Your task to perform on an android device: Play the last video I watched on Youtube Image 0: 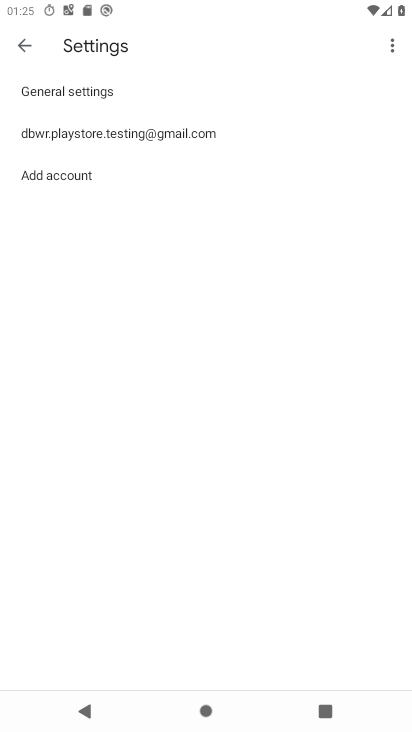
Step 0: drag from (339, 693) to (348, 314)
Your task to perform on an android device: Play the last video I watched on Youtube Image 1: 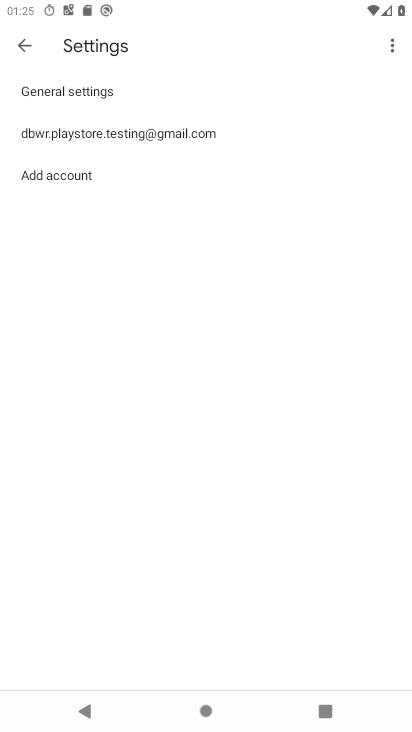
Step 1: press home button
Your task to perform on an android device: Play the last video I watched on Youtube Image 2: 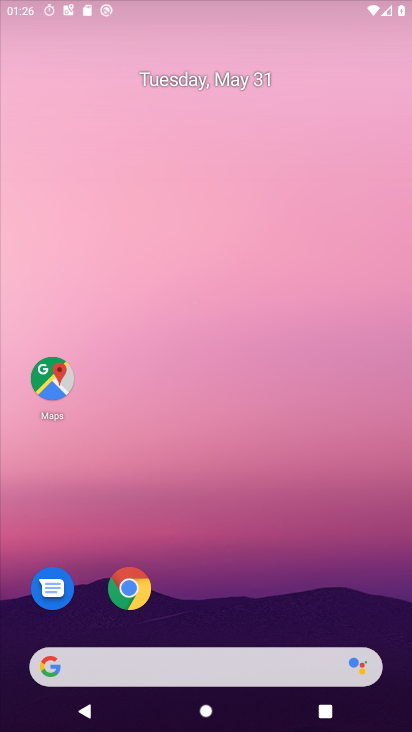
Step 2: drag from (311, 641) to (333, 130)
Your task to perform on an android device: Play the last video I watched on Youtube Image 3: 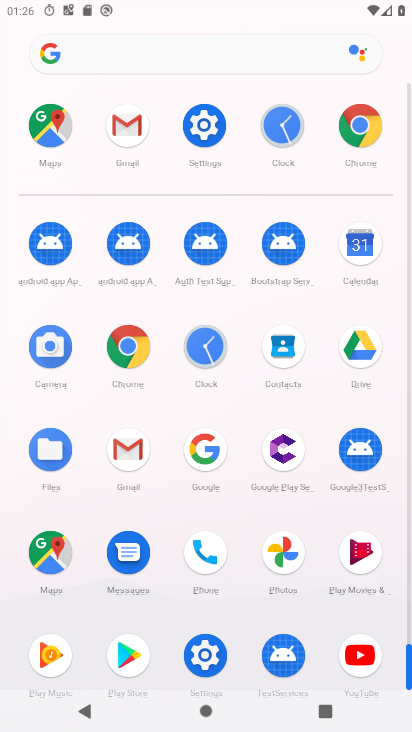
Step 3: click (369, 642)
Your task to perform on an android device: Play the last video I watched on Youtube Image 4: 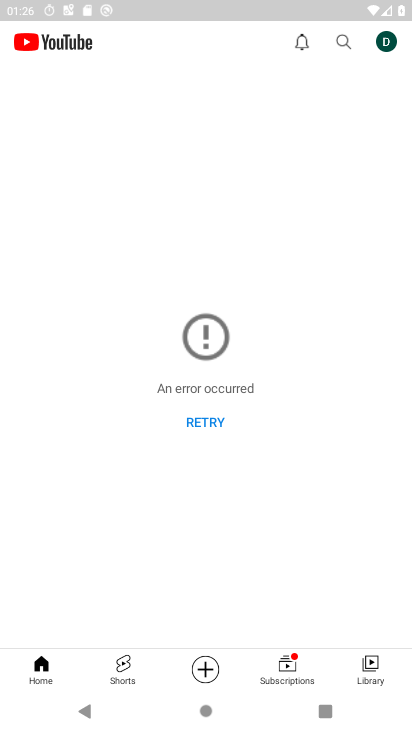
Step 4: click (372, 672)
Your task to perform on an android device: Play the last video I watched on Youtube Image 5: 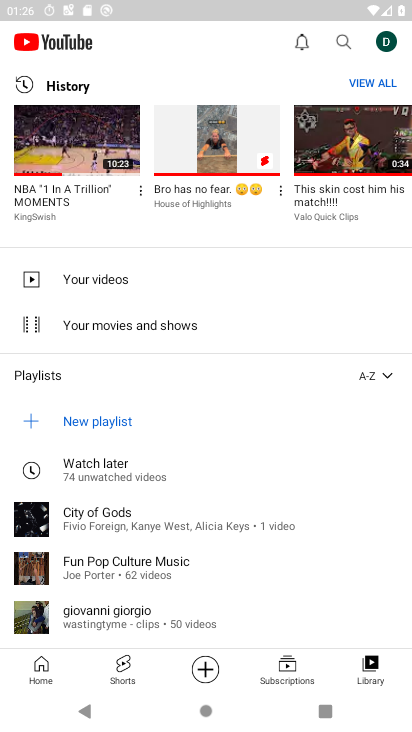
Step 5: click (63, 145)
Your task to perform on an android device: Play the last video I watched on Youtube Image 6: 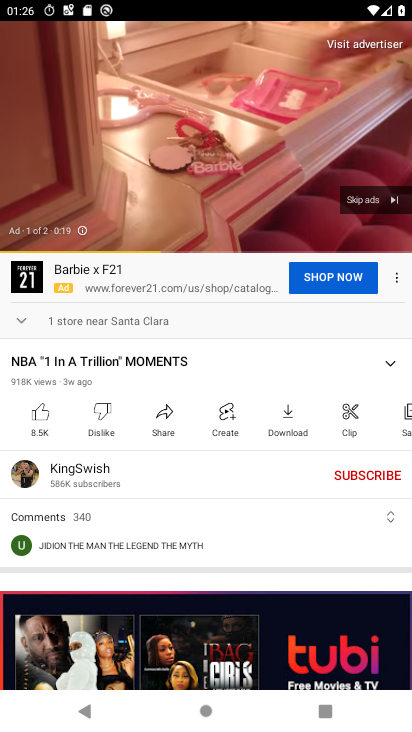
Step 6: click (380, 201)
Your task to perform on an android device: Play the last video I watched on Youtube Image 7: 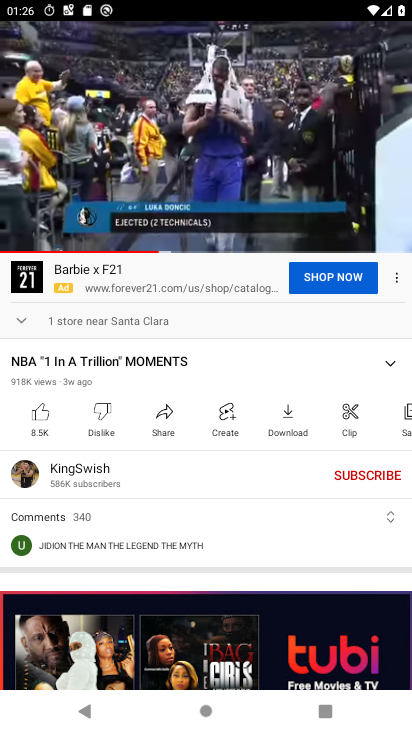
Step 7: task complete